Your task to perform on an android device: turn on sleep mode Image 0: 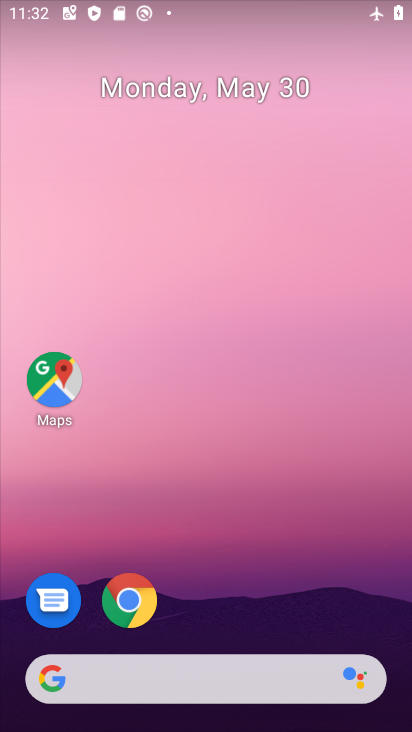
Step 0: drag from (233, 723) to (112, 32)
Your task to perform on an android device: turn on sleep mode Image 1: 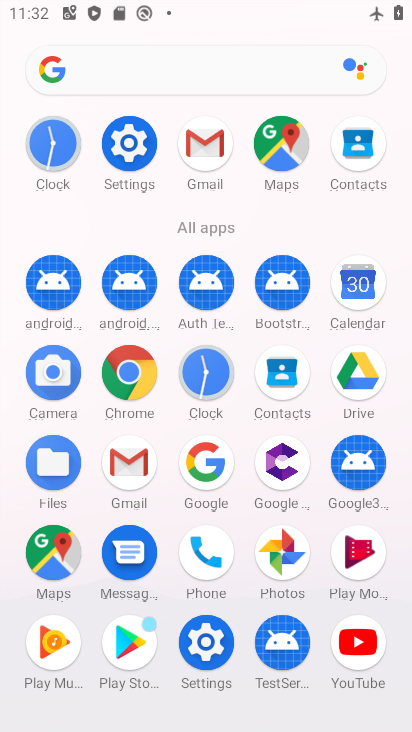
Step 1: click (131, 143)
Your task to perform on an android device: turn on sleep mode Image 2: 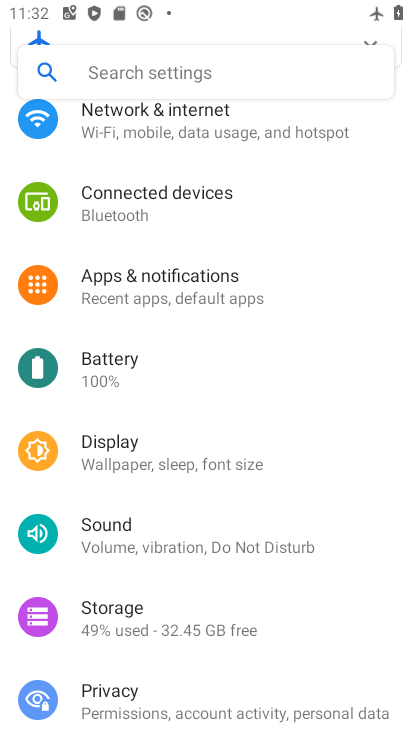
Step 2: task complete